Your task to perform on an android device: Open eBay Image 0: 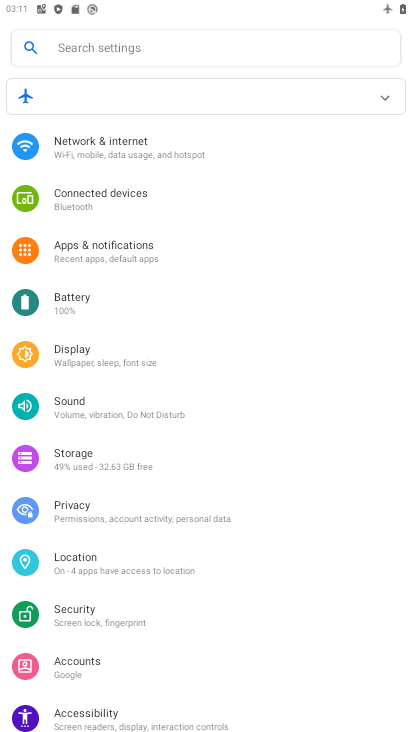
Step 0: press home button
Your task to perform on an android device: Open eBay Image 1: 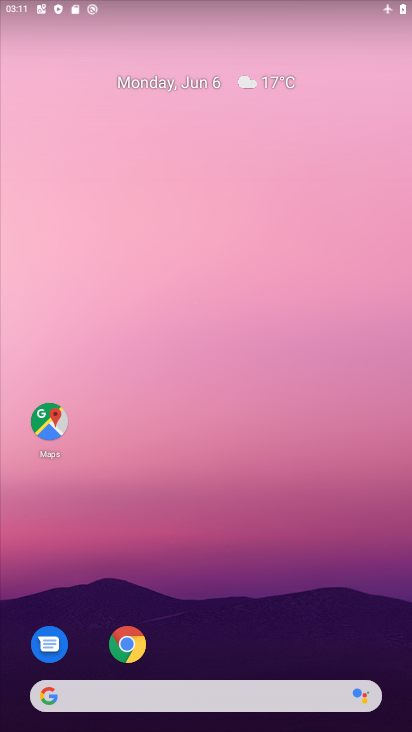
Step 1: click (121, 640)
Your task to perform on an android device: Open eBay Image 2: 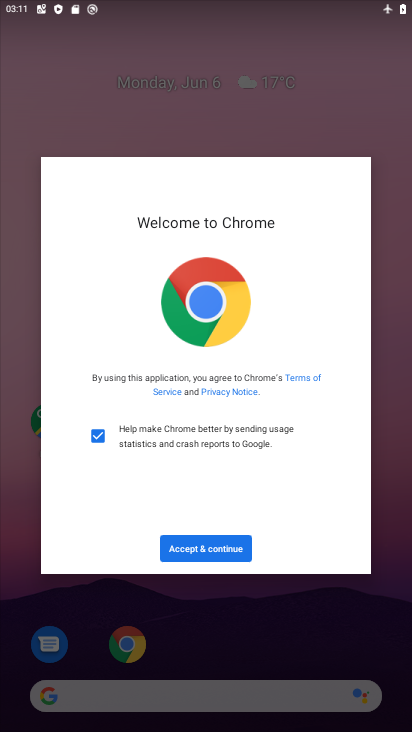
Step 2: click (211, 546)
Your task to perform on an android device: Open eBay Image 3: 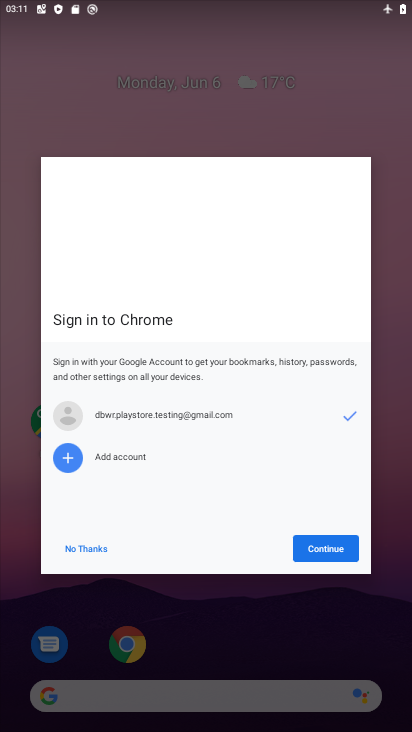
Step 3: click (315, 538)
Your task to perform on an android device: Open eBay Image 4: 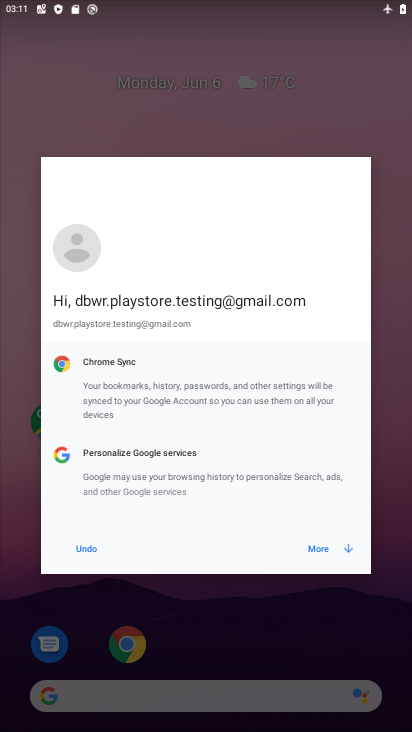
Step 4: click (304, 542)
Your task to perform on an android device: Open eBay Image 5: 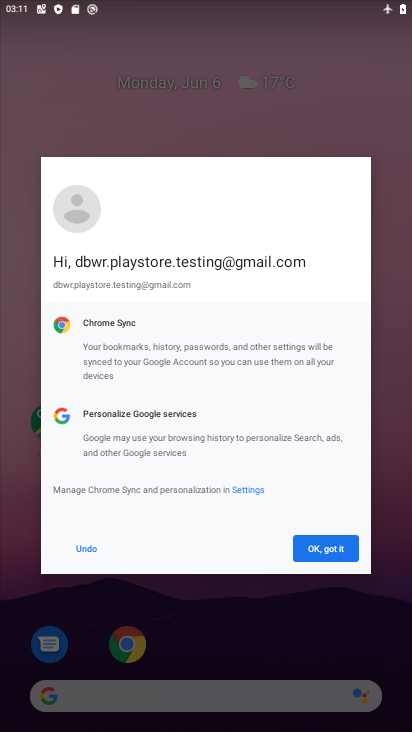
Step 5: click (308, 544)
Your task to perform on an android device: Open eBay Image 6: 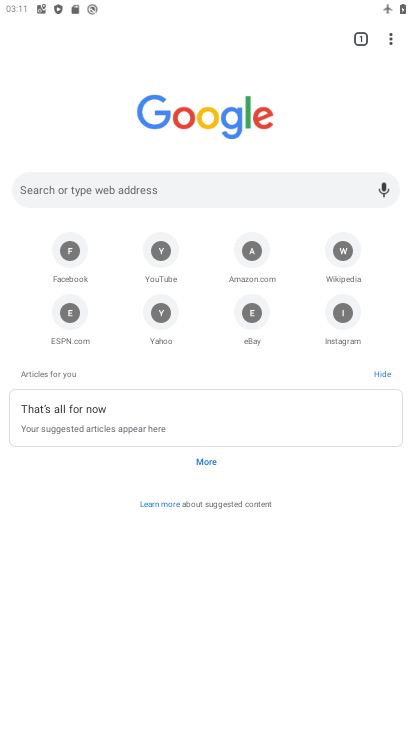
Step 6: click (151, 188)
Your task to perform on an android device: Open eBay Image 7: 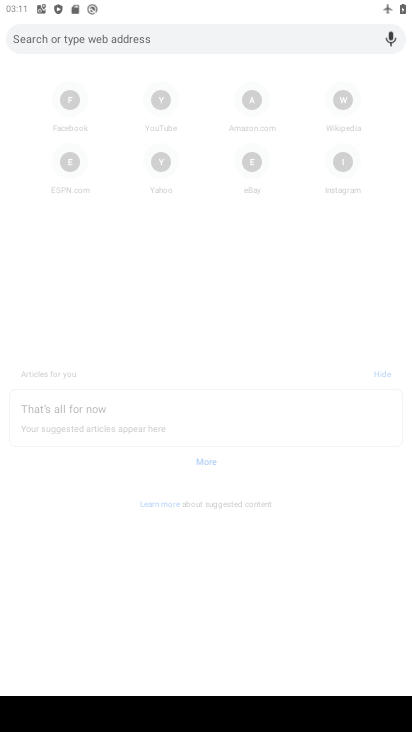
Step 7: type "eBay"
Your task to perform on an android device: Open eBay Image 8: 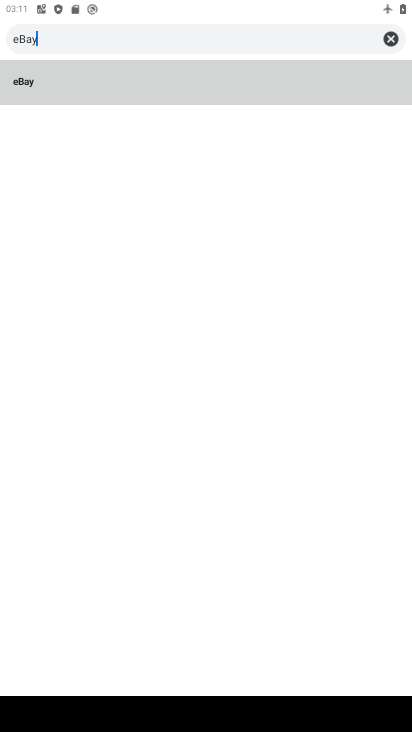
Step 8: click (46, 84)
Your task to perform on an android device: Open eBay Image 9: 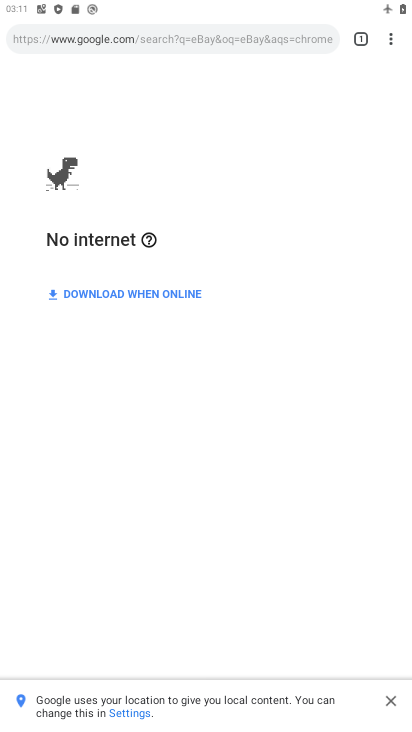
Step 9: task complete